Your task to perform on an android device: Open Youtube and go to "Your channel" Image 0: 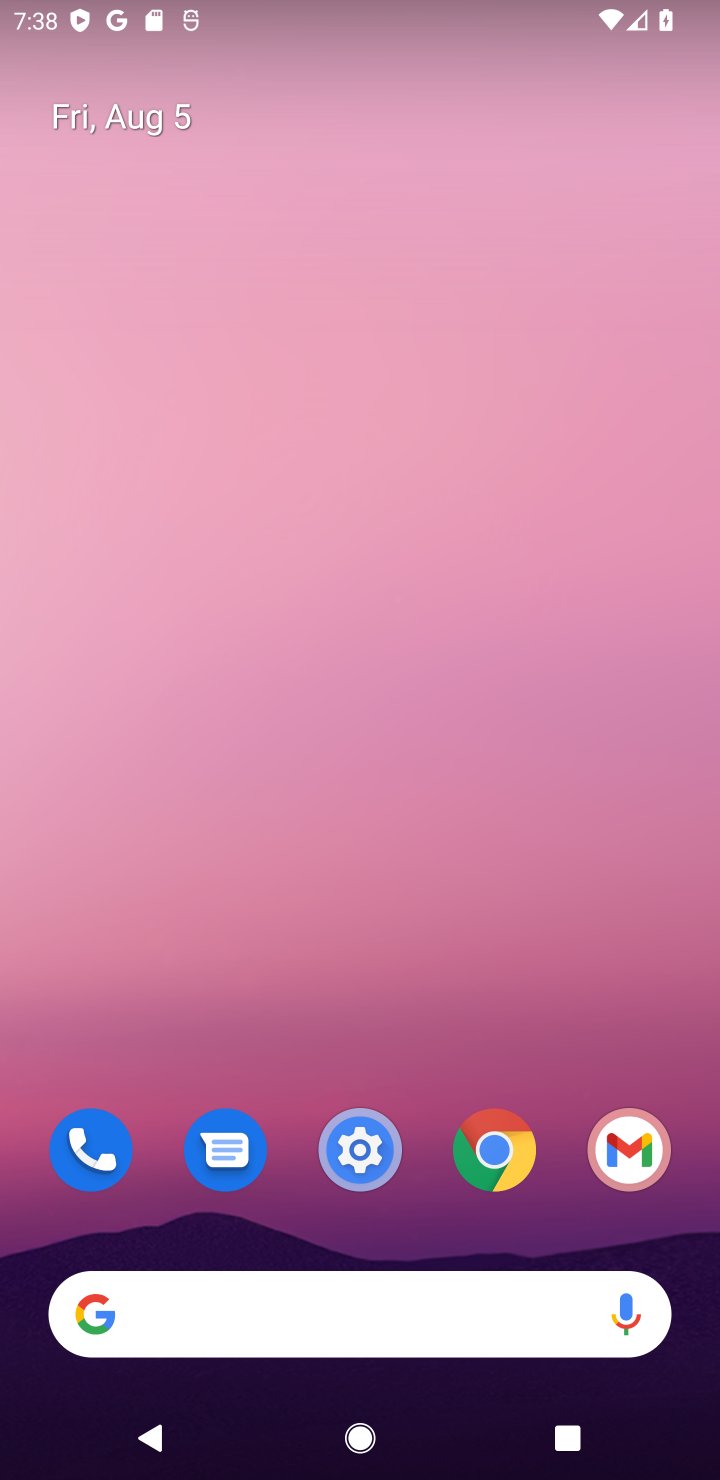
Step 0: press home button
Your task to perform on an android device: Open Youtube and go to "Your channel" Image 1: 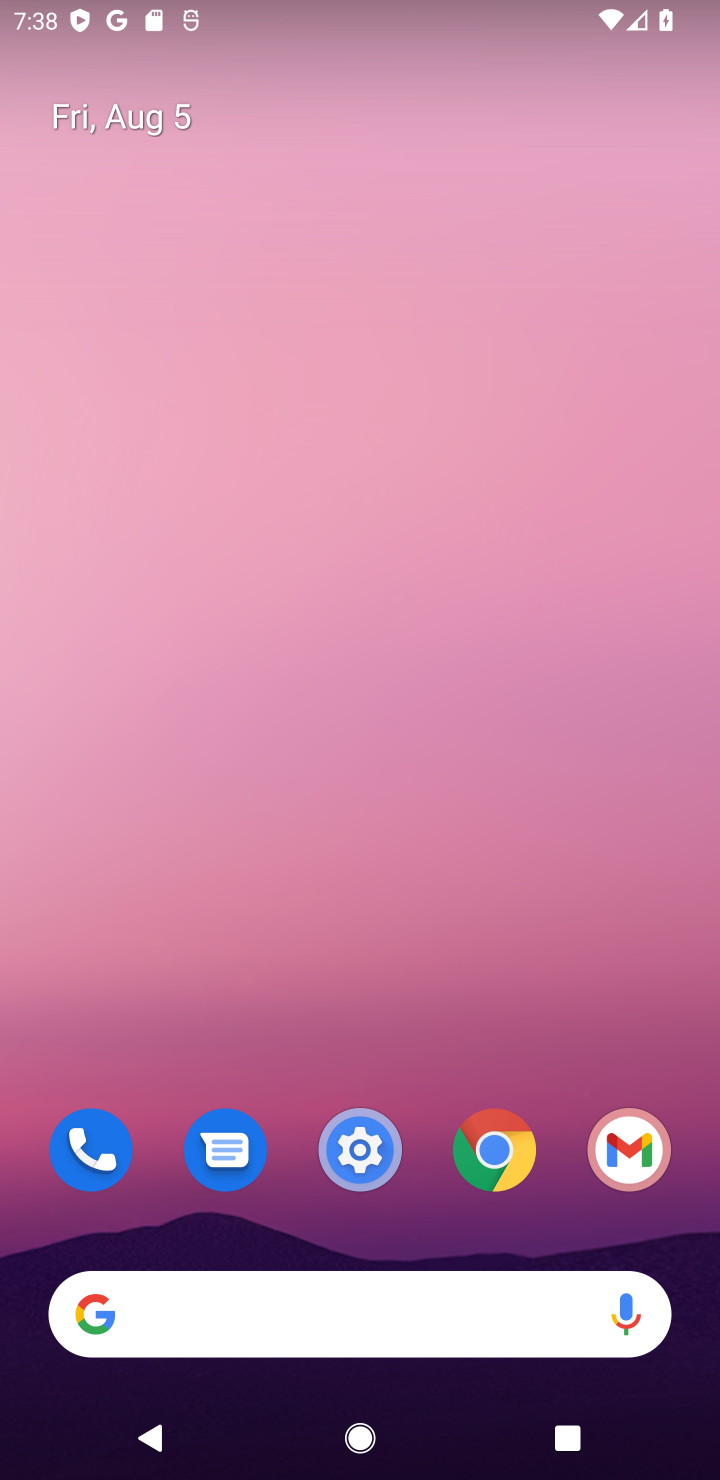
Step 1: drag from (408, 1048) to (424, 346)
Your task to perform on an android device: Open Youtube and go to "Your channel" Image 2: 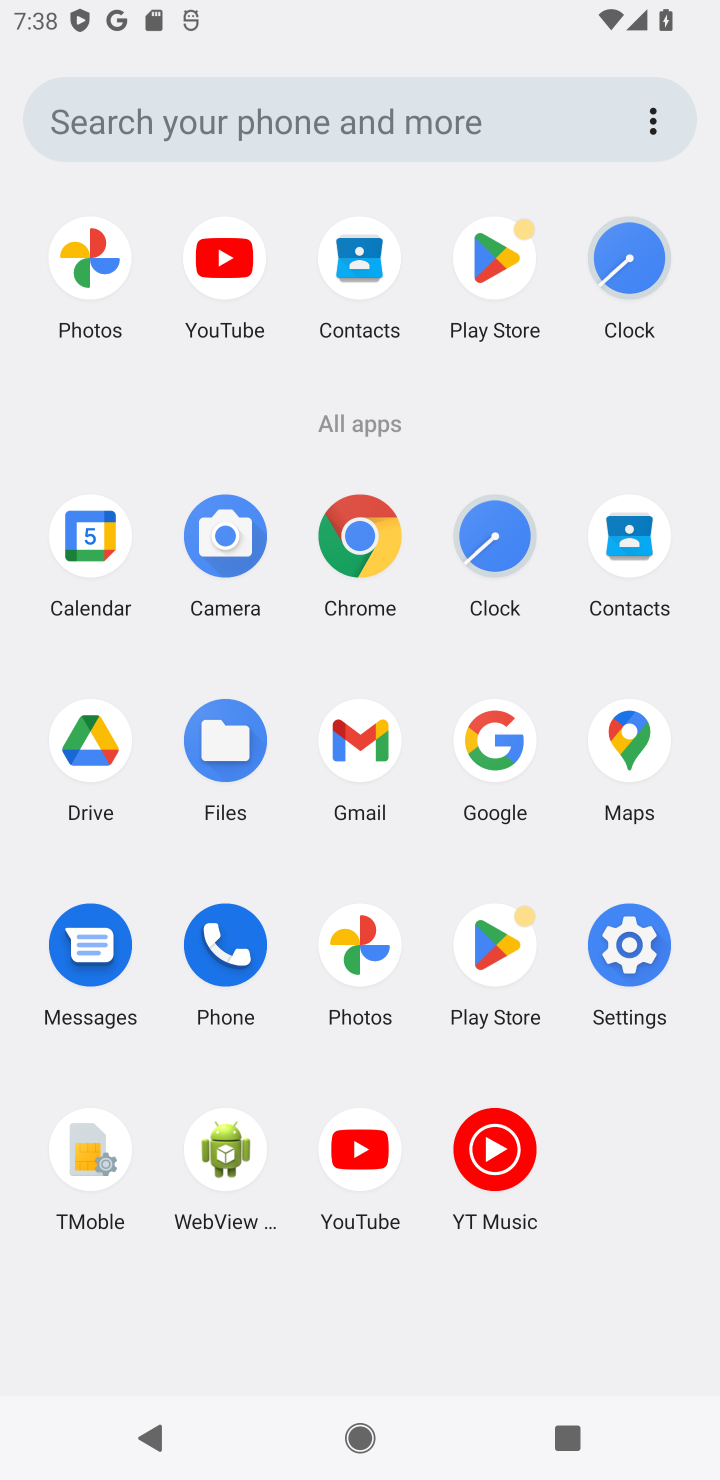
Step 2: click (347, 1147)
Your task to perform on an android device: Open Youtube and go to "Your channel" Image 3: 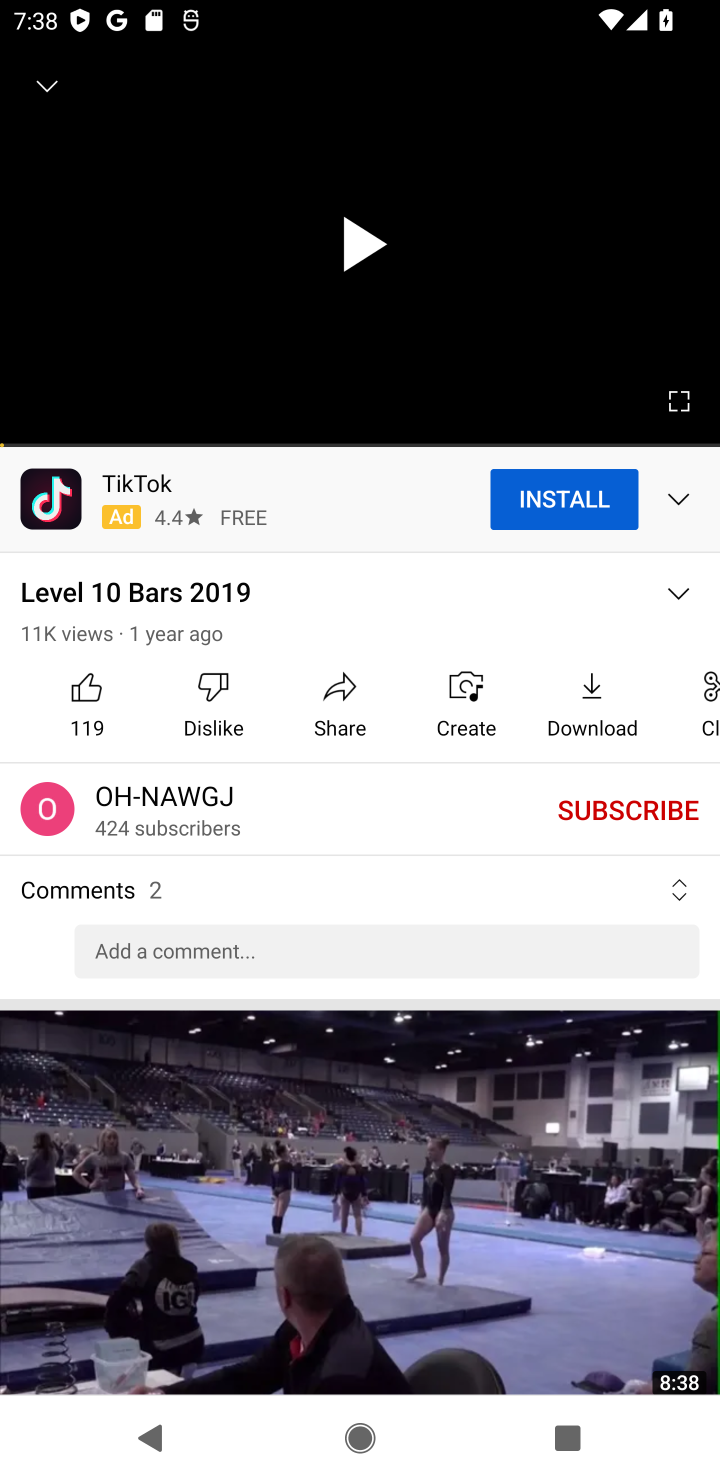
Step 3: press back button
Your task to perform on an android device: Open Youtube and go to "Your channel" Image 4: 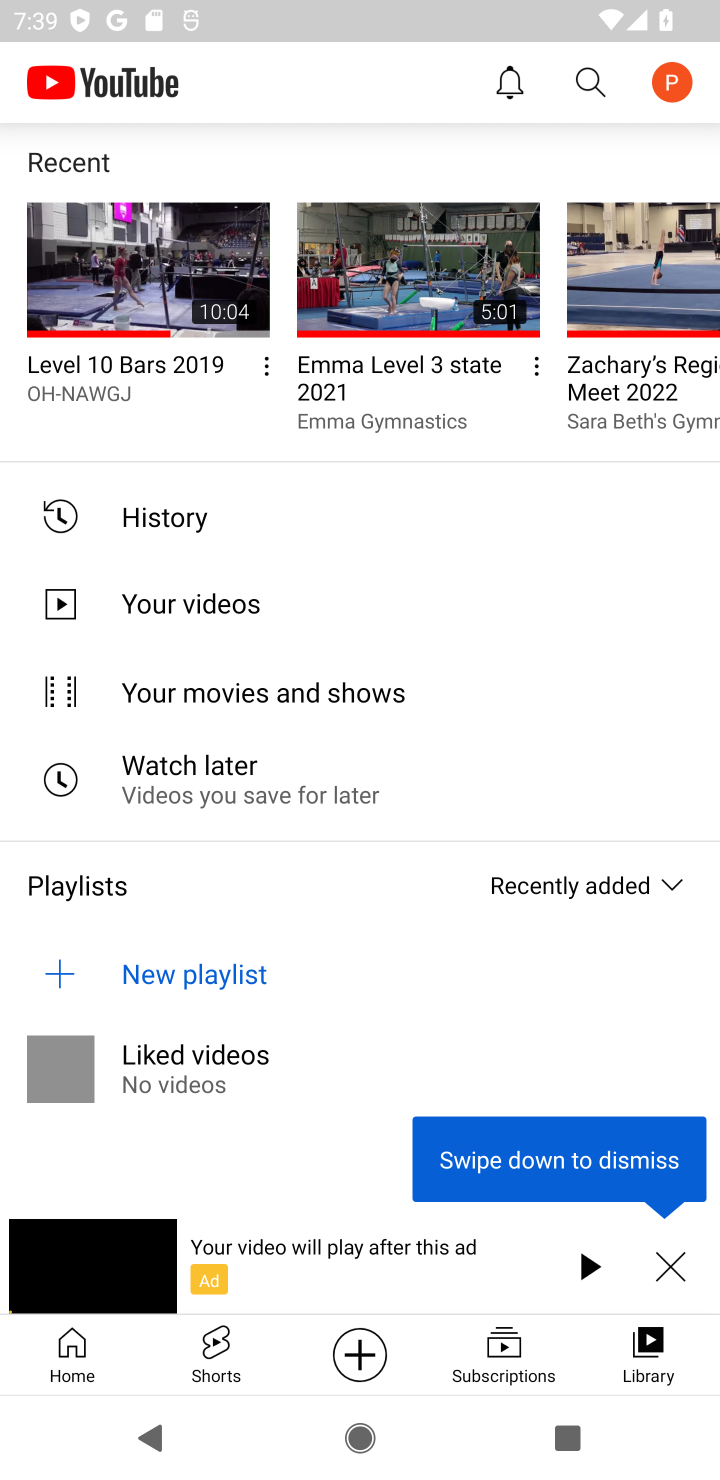
Step 4: click (670, 88)
Your task to perform on an android device: Open Youtube and go to "Your channel" Image 5: 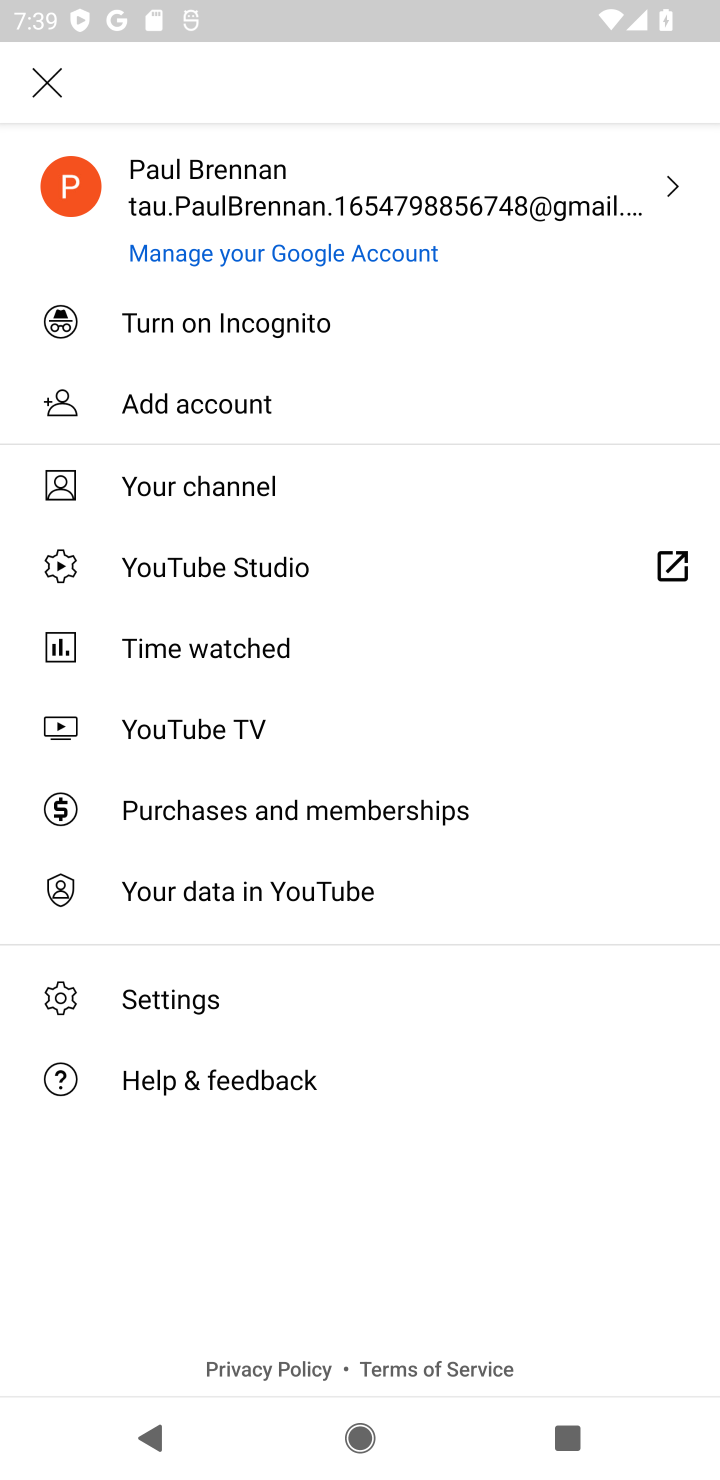
Step 5: click (358, 477)
Your task to perform on an android device: Open Youtube and go to "Your channel" Image 6: 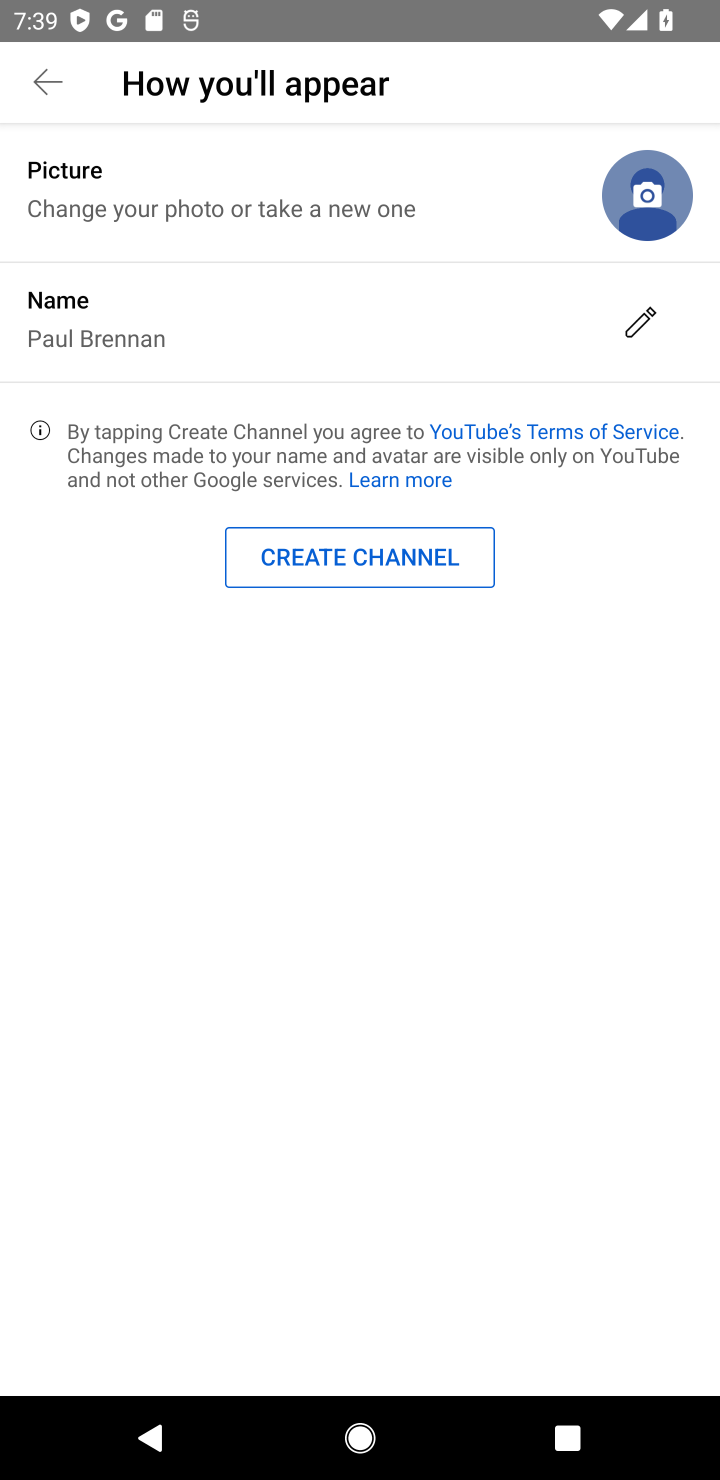
Step 6: task complete